Your task to perform on an android device: Do I have any events this weekend? Image 0: 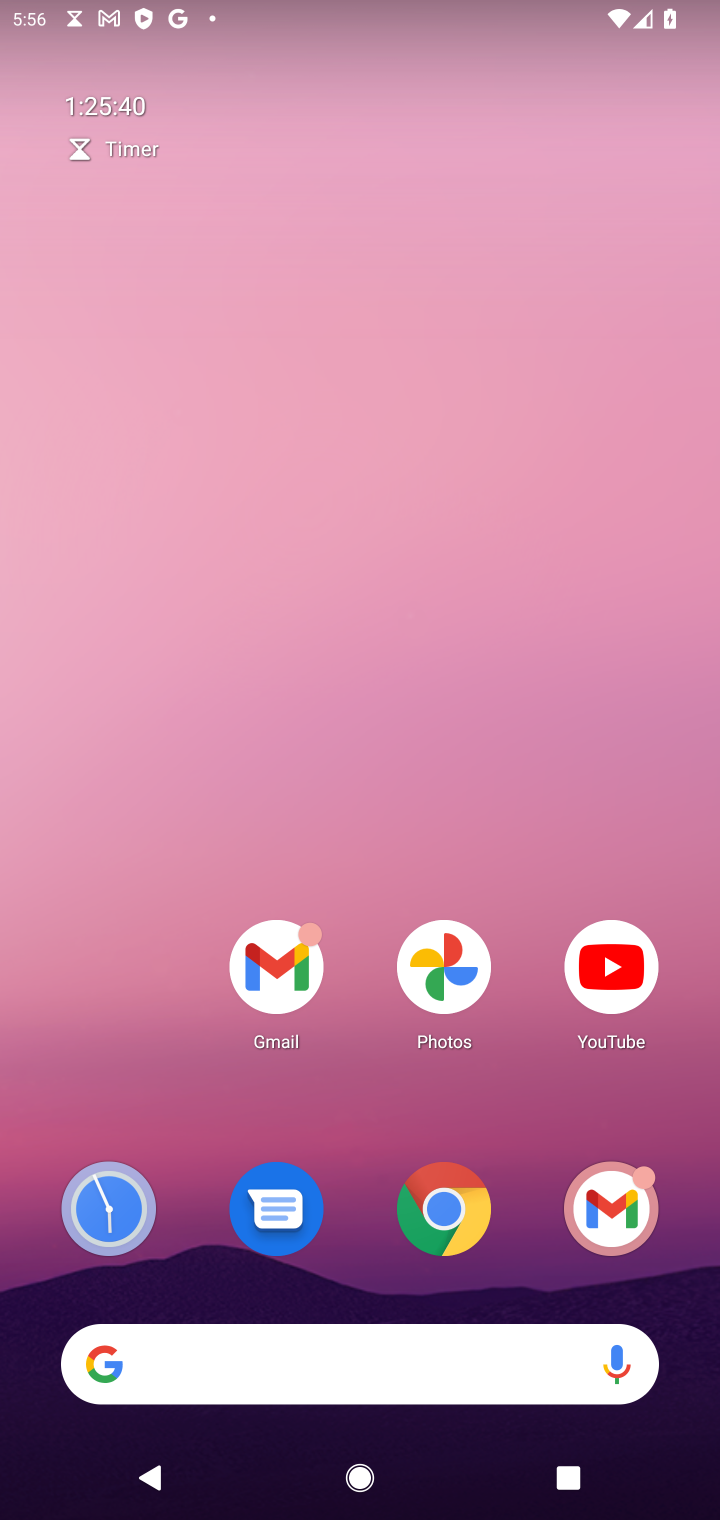
Step 0: drag from (304, 1130) to (318, 23)
Your task to perform on an android device: Do I have any events this weekend? Image 1: 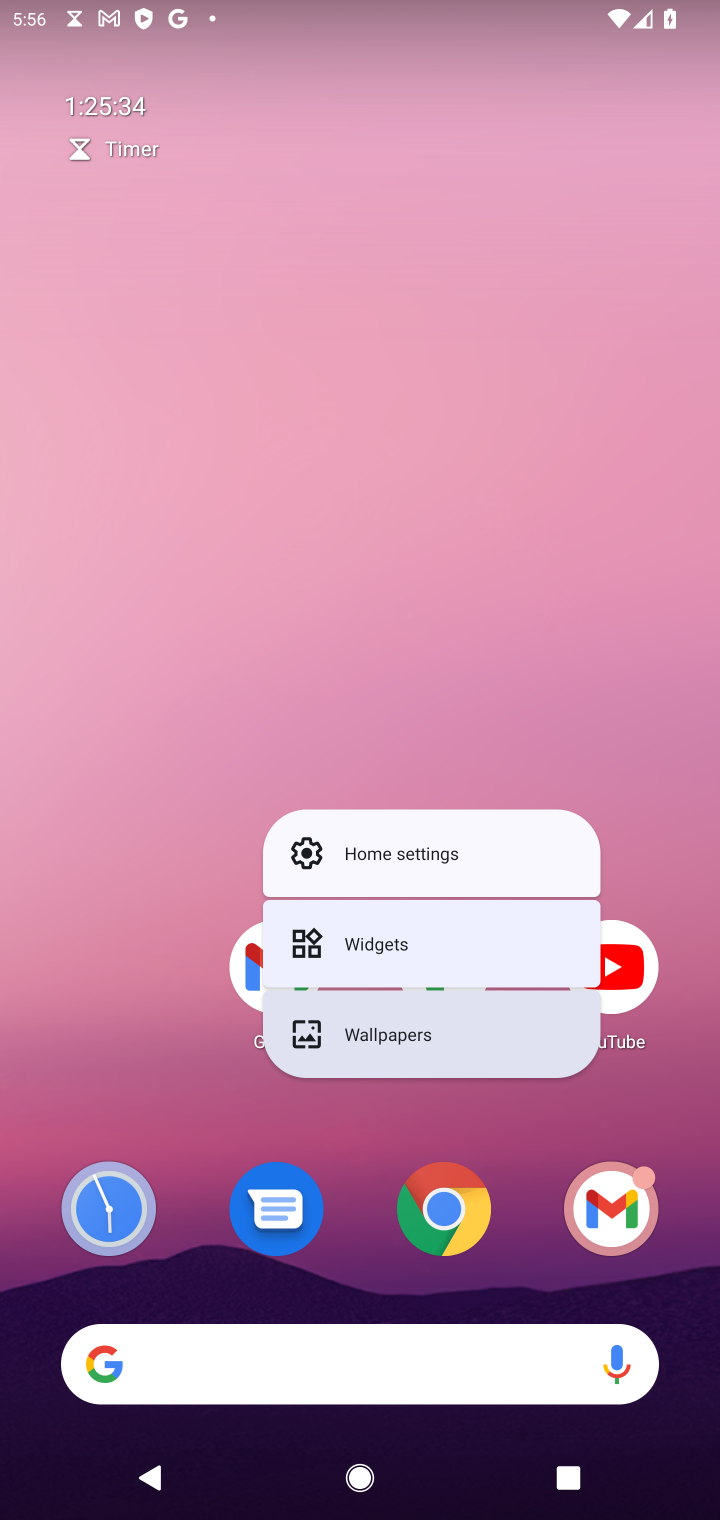
Step 1: drag from (291, 1359) to (56, 460)
Your task to perform on an android device: Do I have any events this weekend? Image 2: 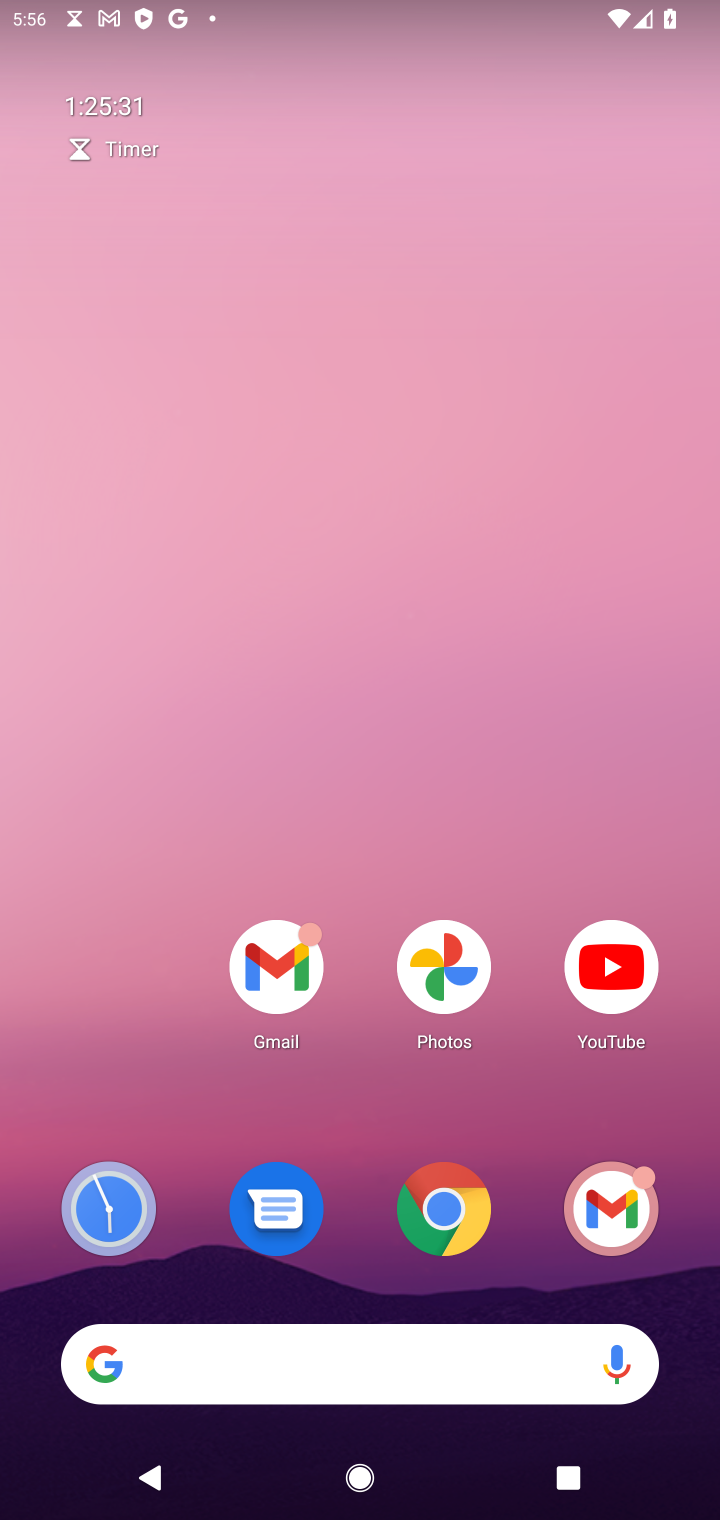
Step 2: drag from (366, 1394) to (315, 173)
Your task to perform on an android device: Do I have any events this weekend? Image 3: 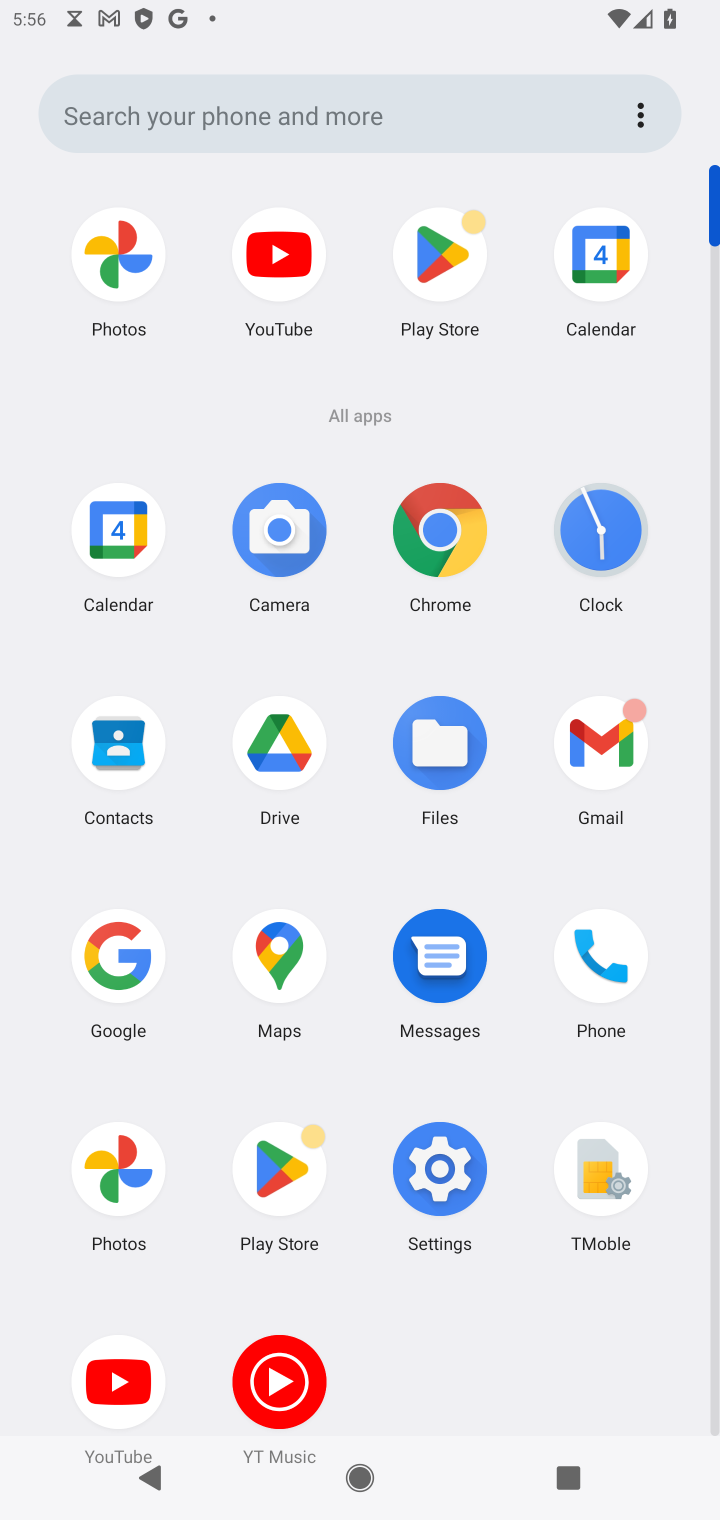
Step 3: click (118, 547)
Your task to perform on an android device: Do I have any events this weekend? Image 4: 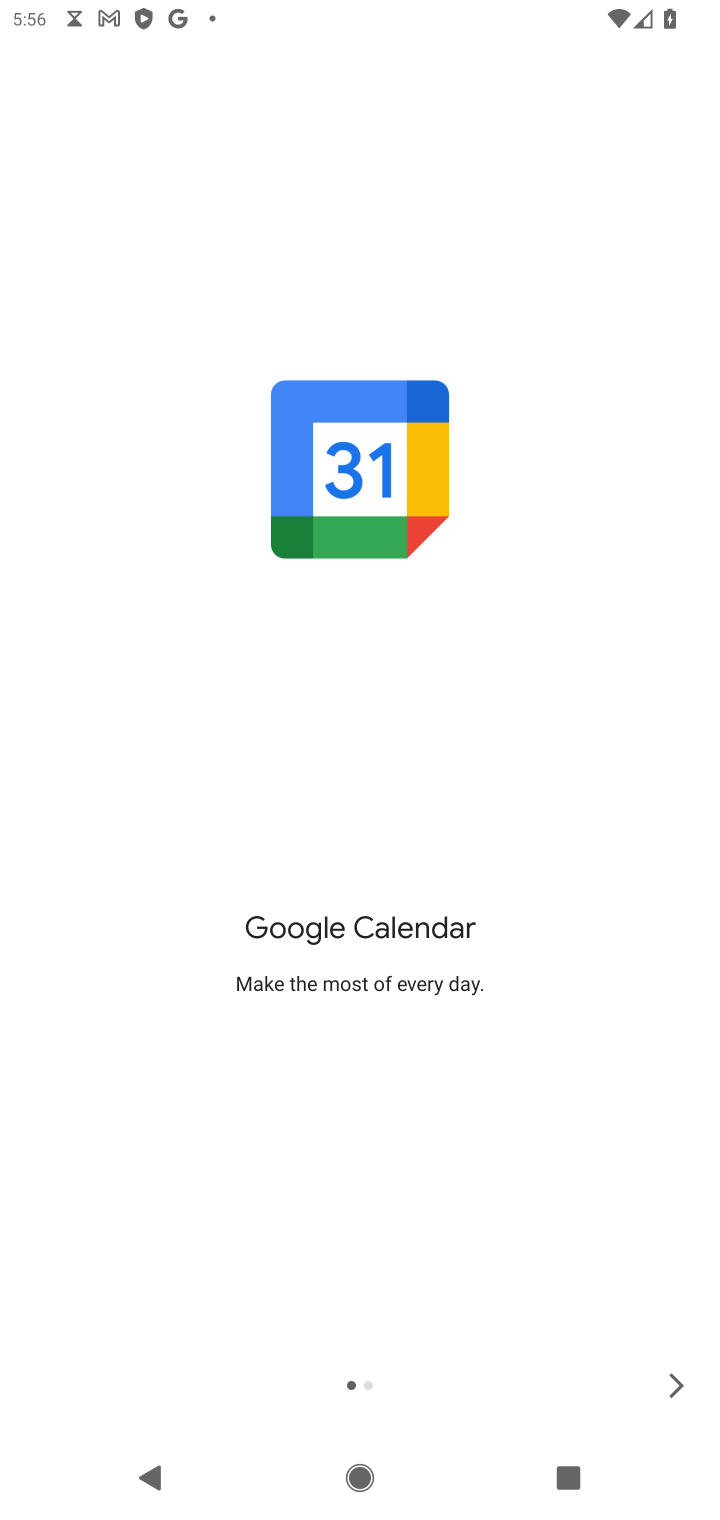
Step 4: click (679, 1365)
Your task to perform on an android device: Do I have any events this weekend? Image 5: 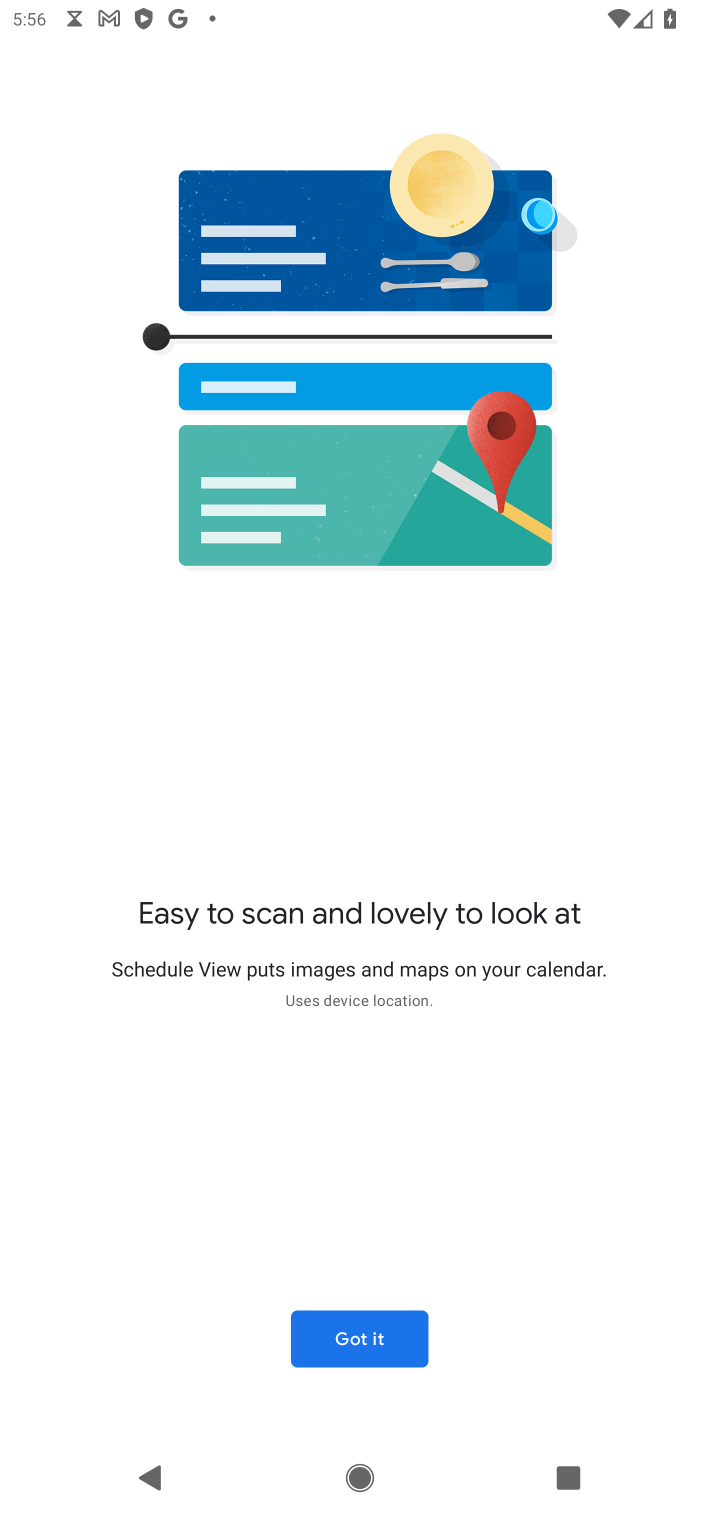
Step 5: click (384, 1347)
Your task to perform on an android device: Do I have any events this weekend? Image 6: 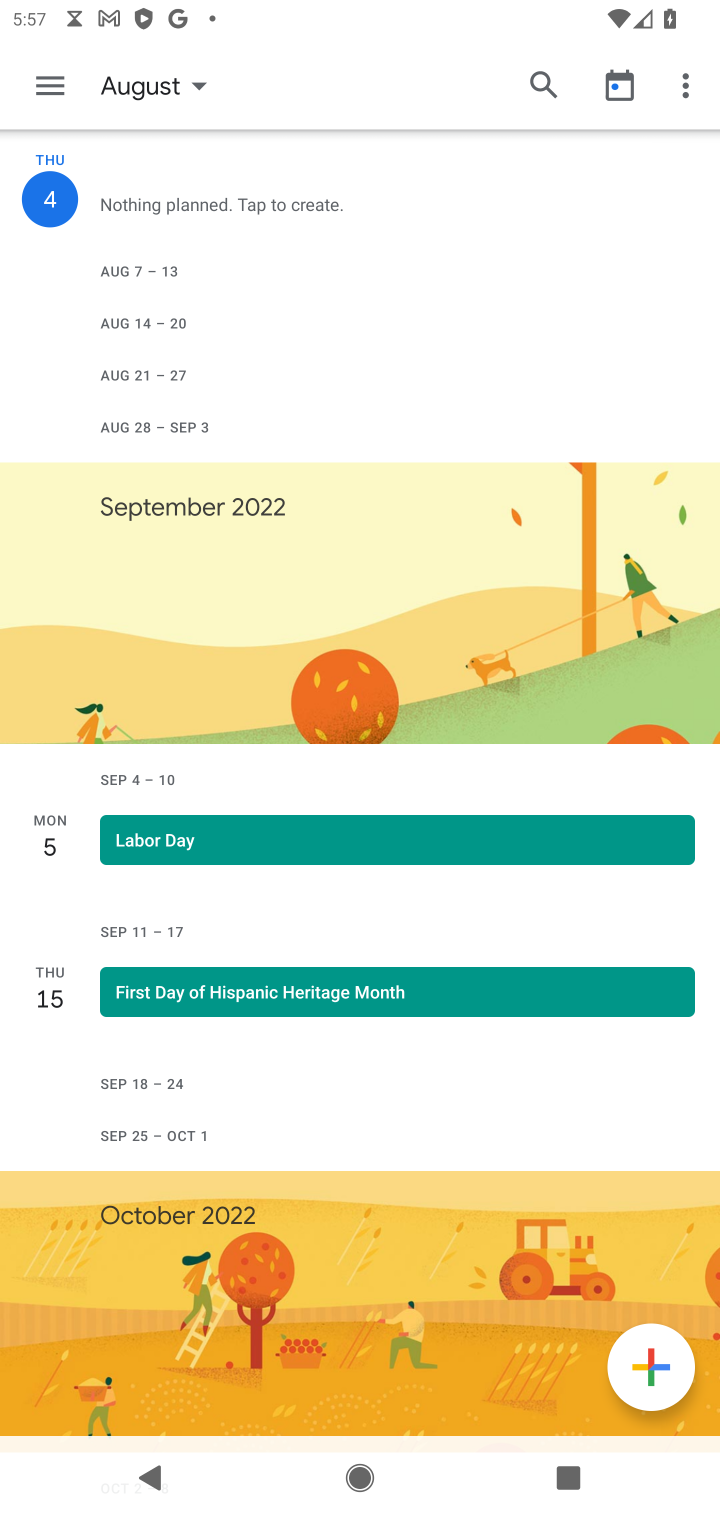
Step 6: click (51, 97)
Your task to perform on an android device: Do I have any events this weekend? Image 7: 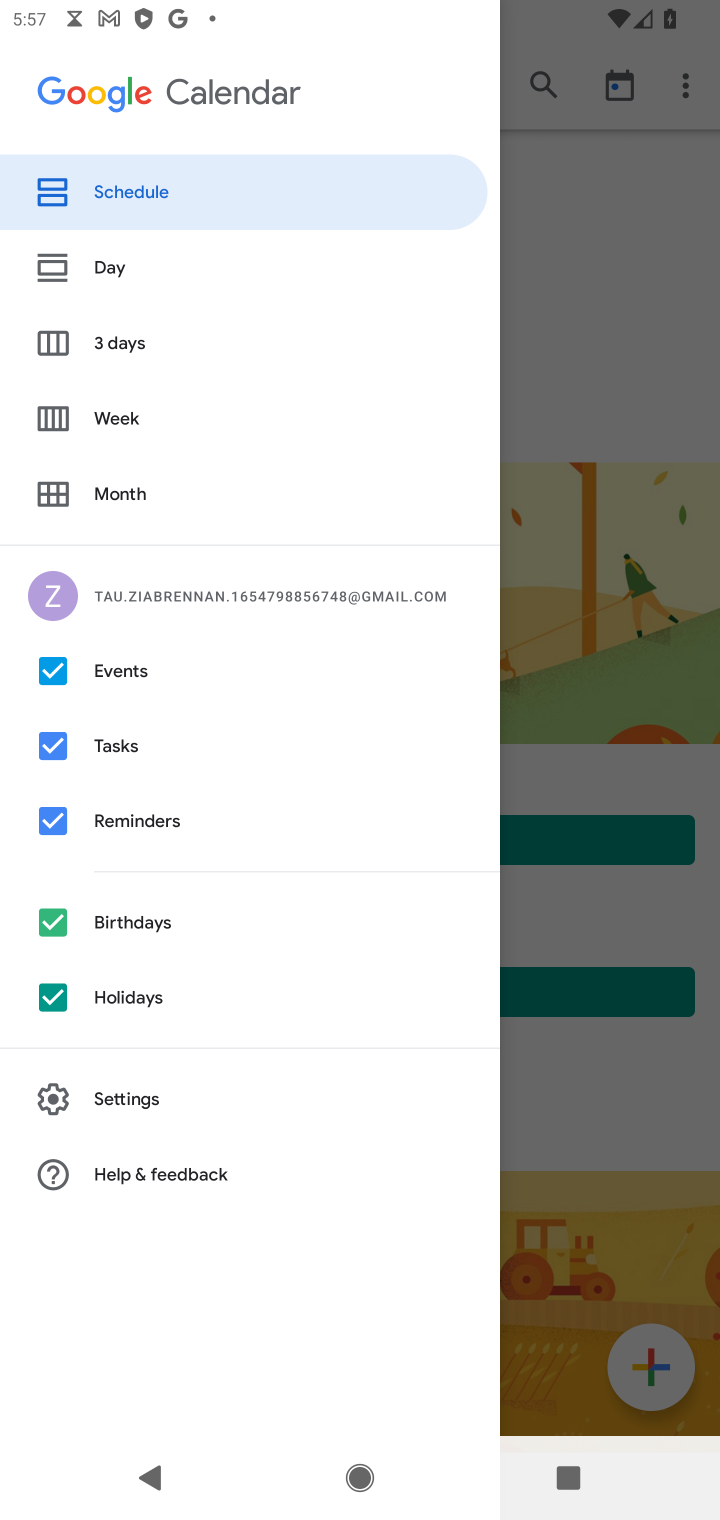
Step 7: click (110, 427)
Your task to perform on an android device: Do I have any events this weekend? Image 8: 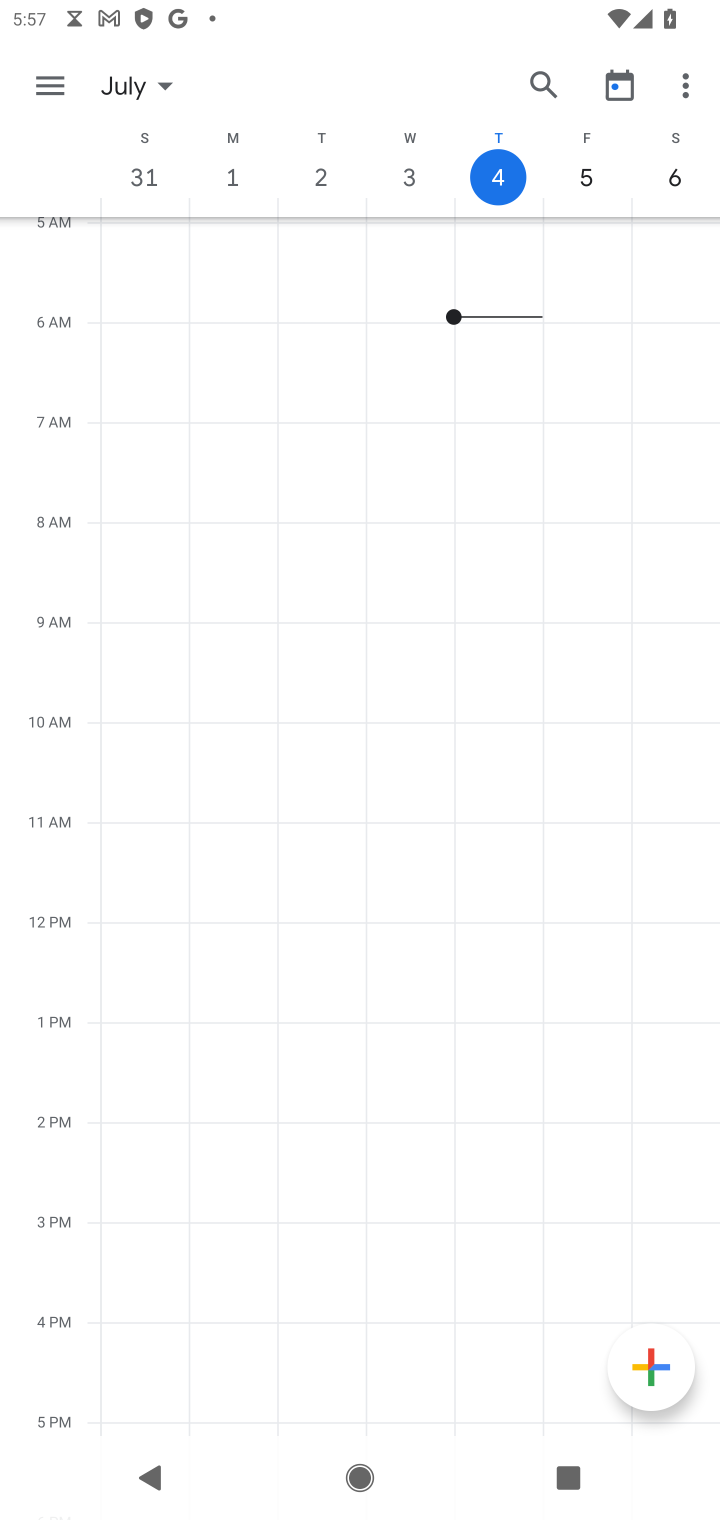
Step 8: task complete